Your task to perform on an android device: Go to notification settings Image 0: 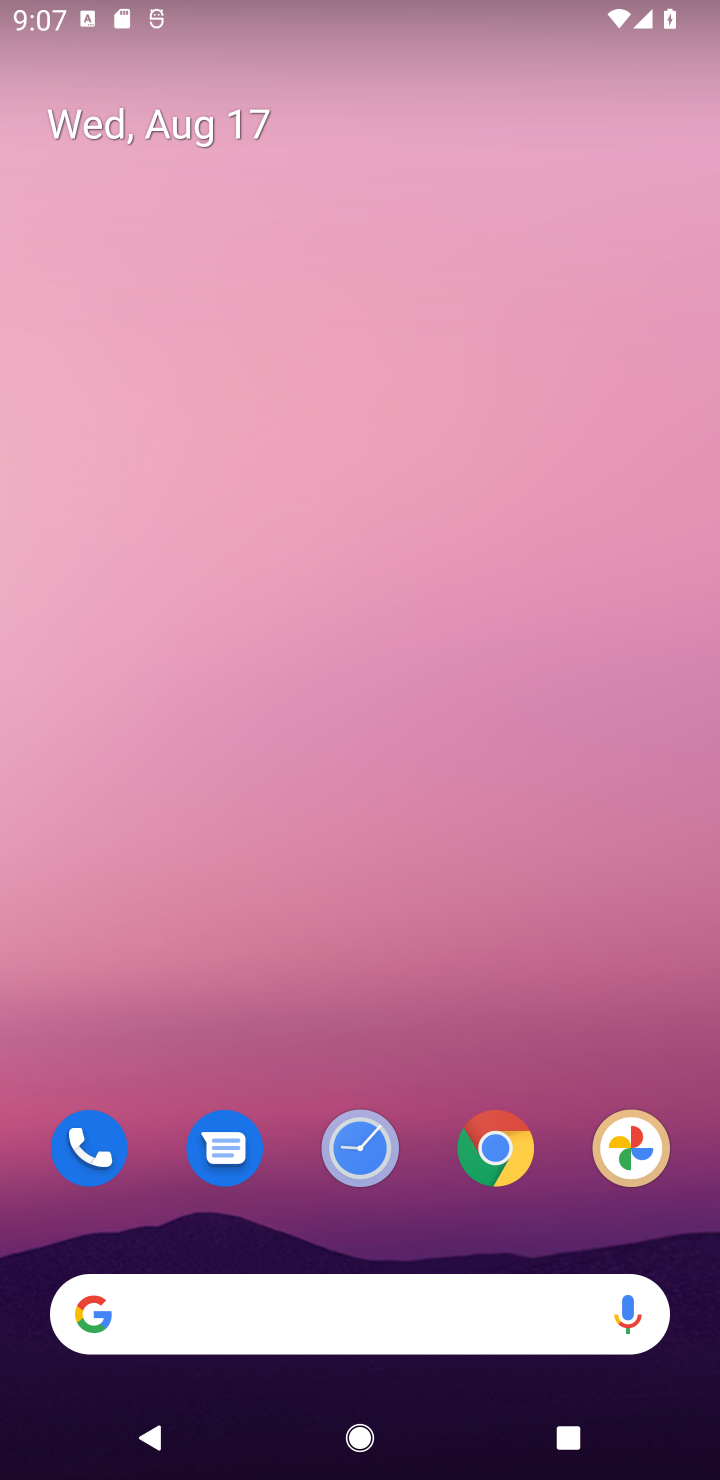
Step 0: drag from (448, 1228) to (432, 237)
Your task to perform on an android device: Go to notification settings Image 1: 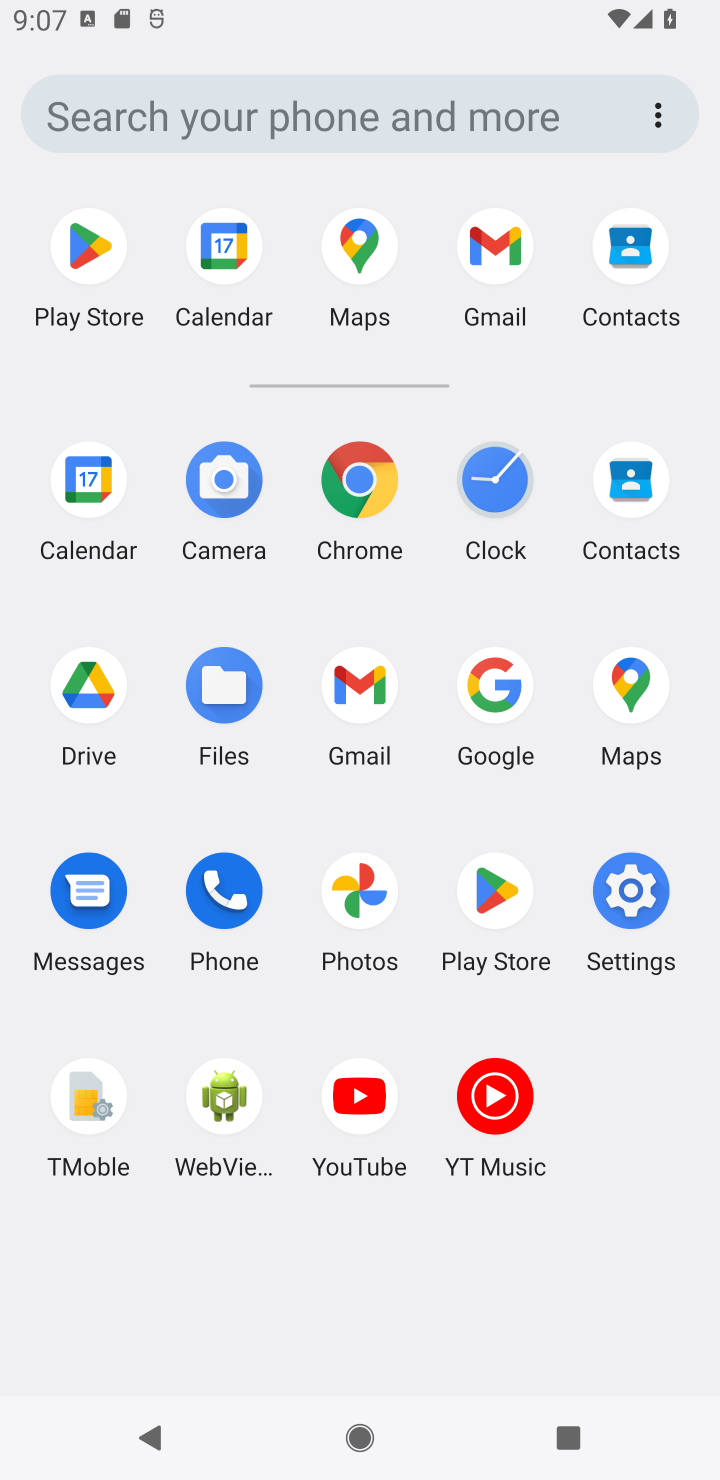
Step 1: click (635, 896)
Your task to perform on an android device: Go to notification settings Image 2: 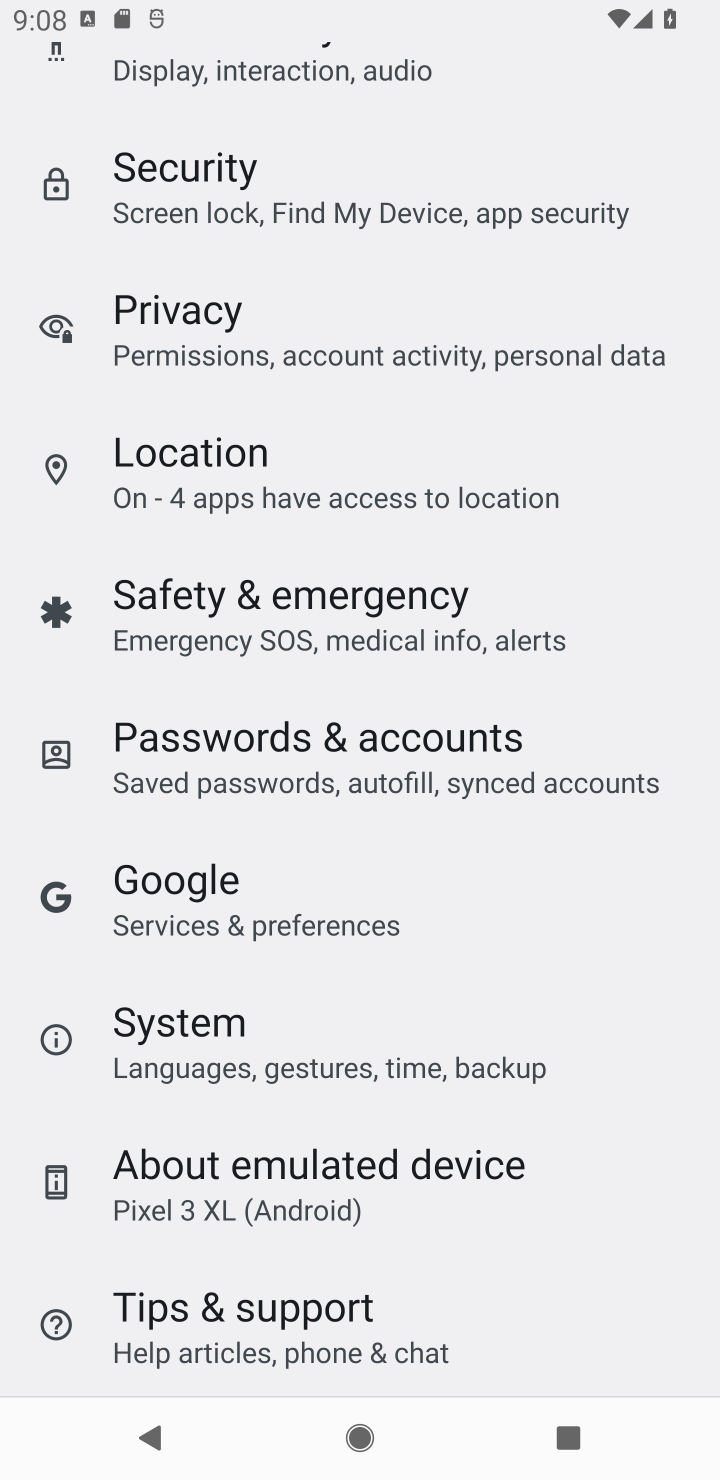
Step 2: drag from (612, 620) to (538, 1051)
Your task to perform on an android device: Go to notification settings Image 3: 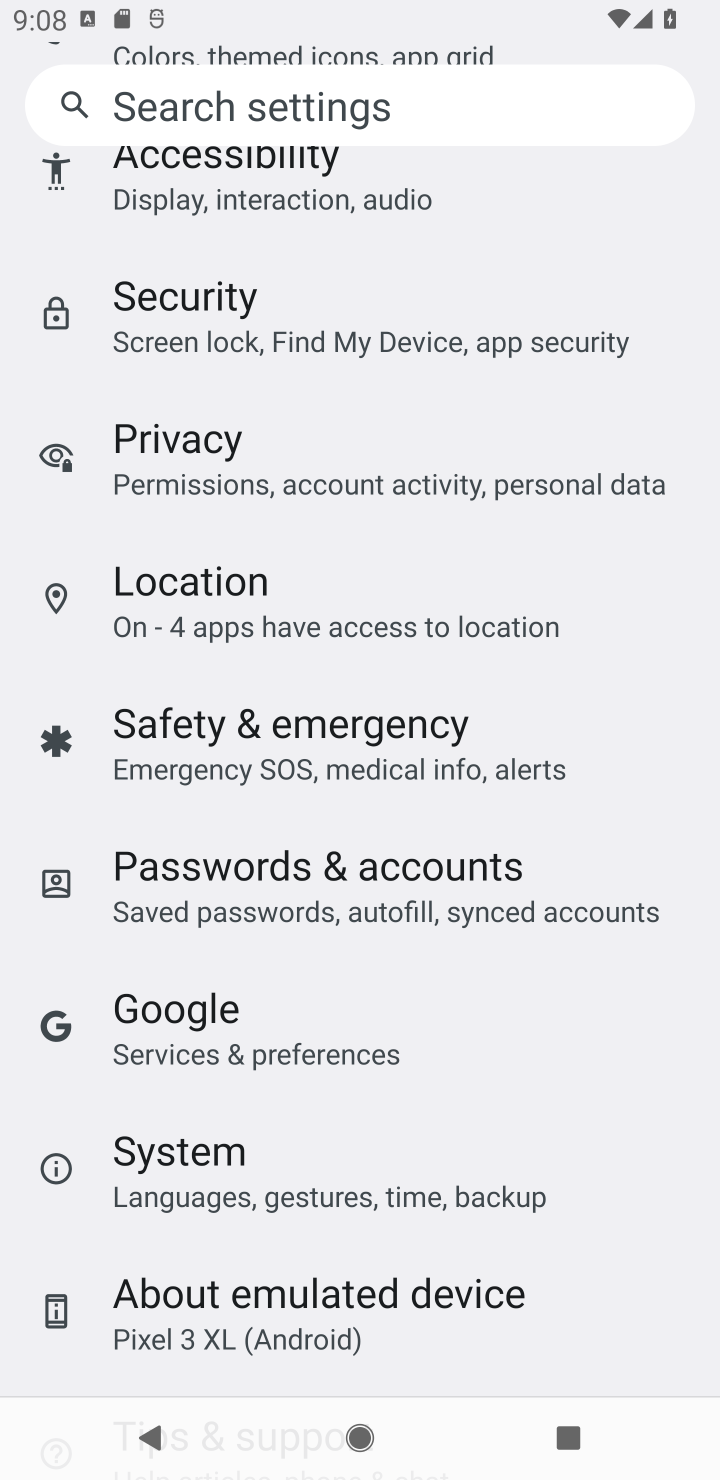
Step 3: drag from (569, 195) to (398, 1110)
Your task to perform on an android device: Go to notification settings Image 4: 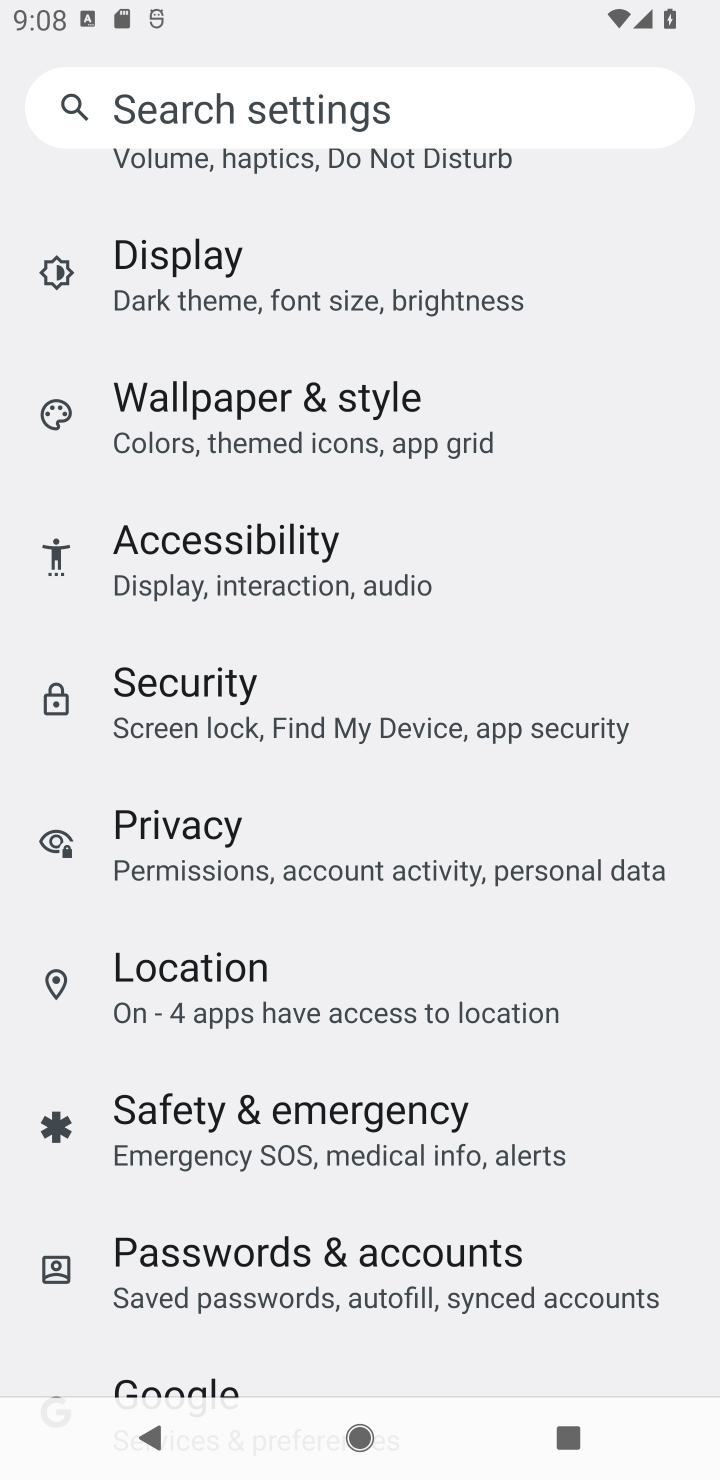
Step 4: drag from (447, 332) to (414, 1136)
Your task to perform on an android device: Go to notification settings Image 5: 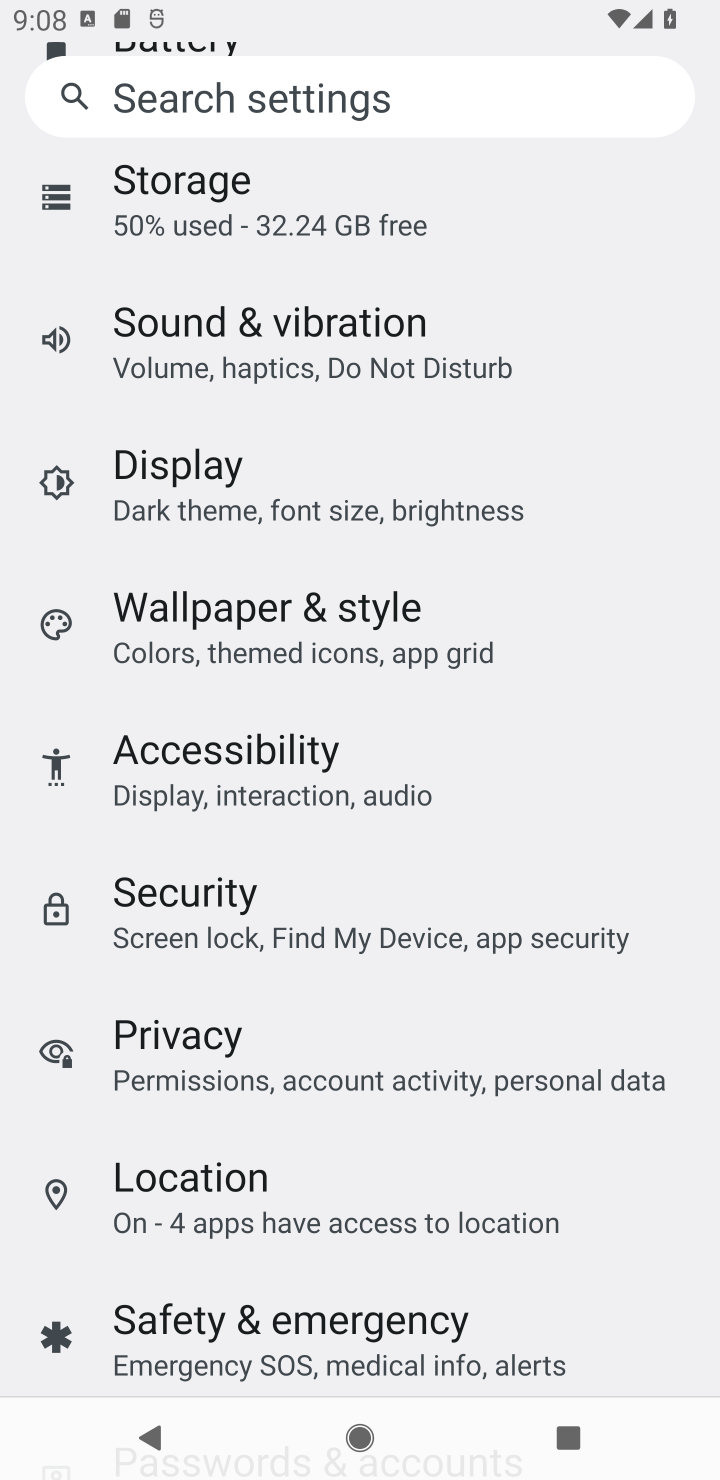
Step 5: drag from (593, 291) to (576, 927)
Your task to perform on an android device: Go to notification settings Image 6: 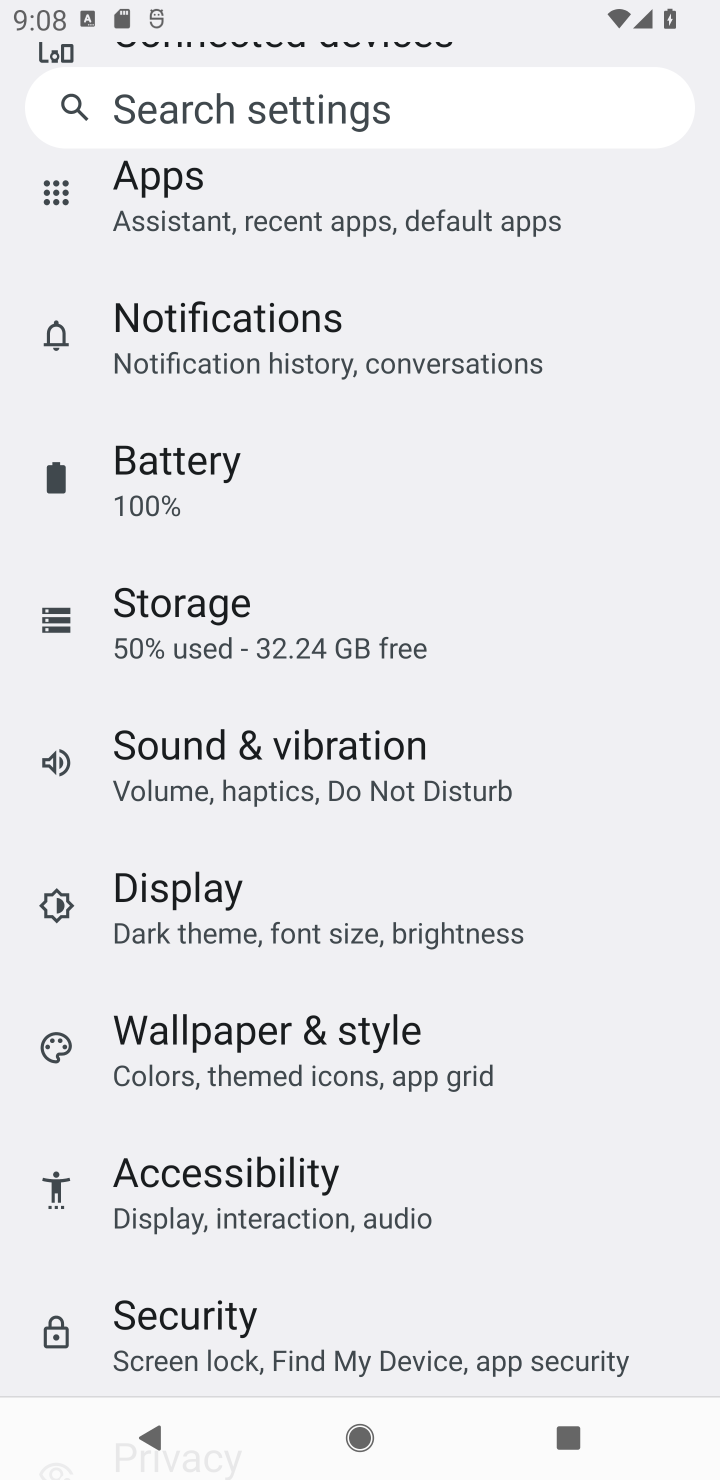
Step 6: click (199, 321)
Your task to perform on an android device: Go to notification settings Image 7: 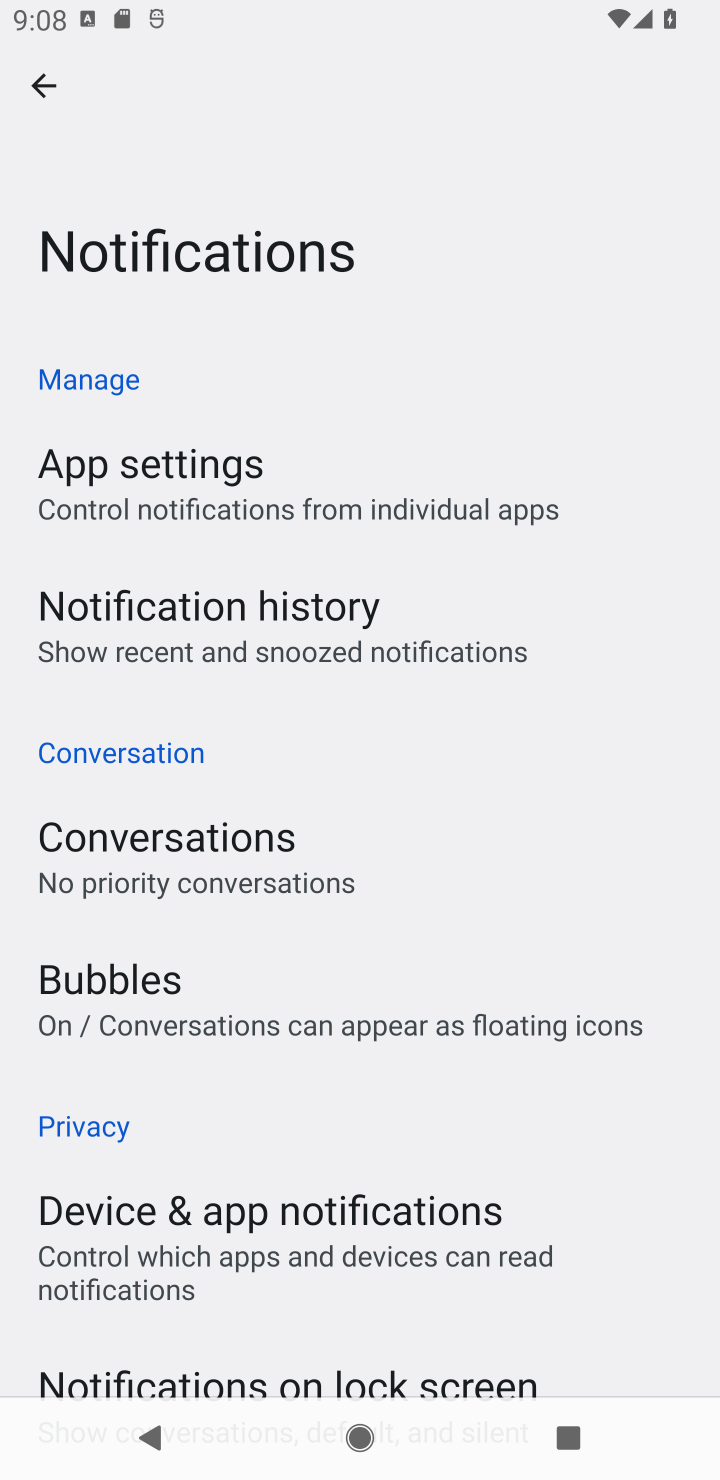
Step 7: task complete